Your task to perform on an android device: Open Wikipedia Image 0: 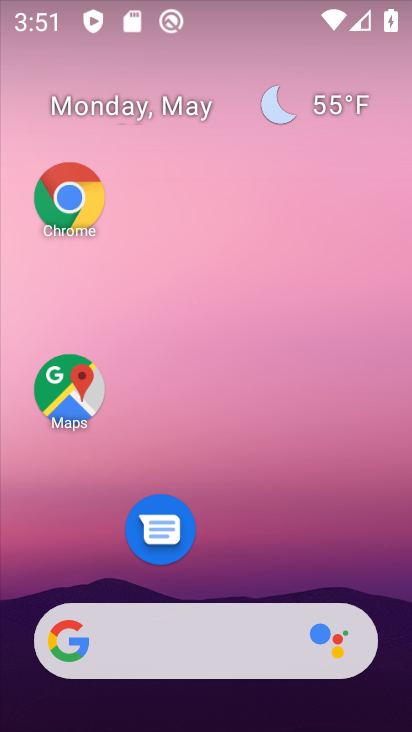
Step 0: drag from (220, 523) to (304, 166)
Your task to perform on an android device: Open Wikipedia Image 1: 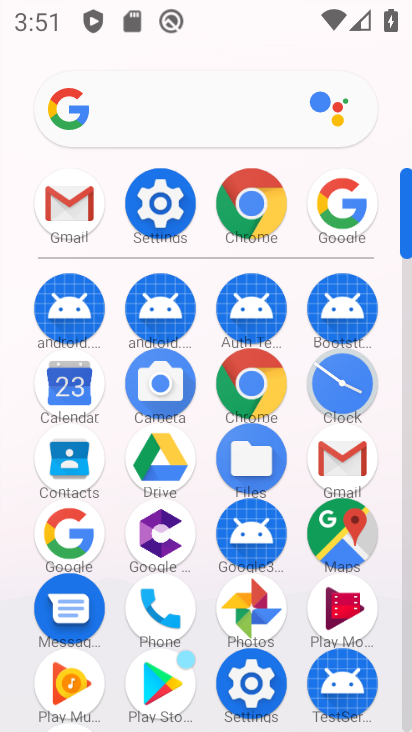
Step 1: click (246, 219)
Your task to perform on an android device: Open Wikipedia Image 2: 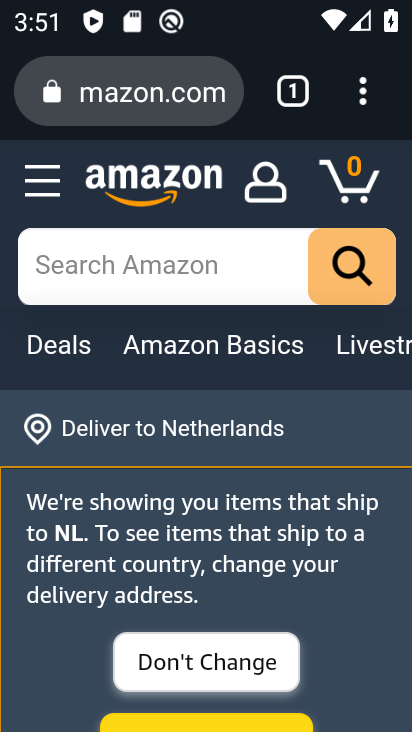
Step 2: click (198, 105)
Your task to perform on an android device: Open Wikipedia Image 3: 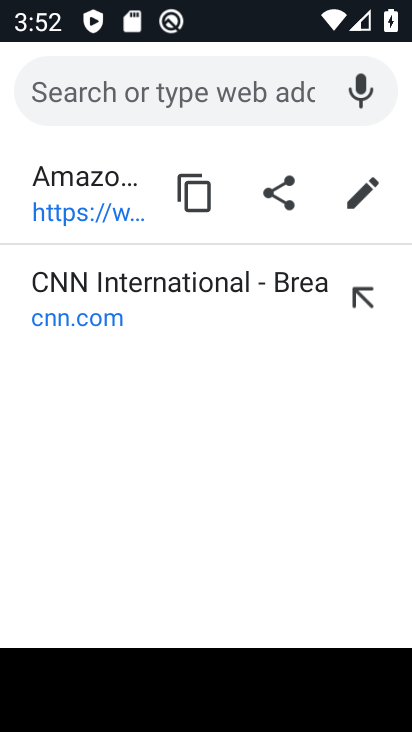
Step 3: type "wikipedia"
Your task to perform on an android device: Open Wikipedia Image 4: 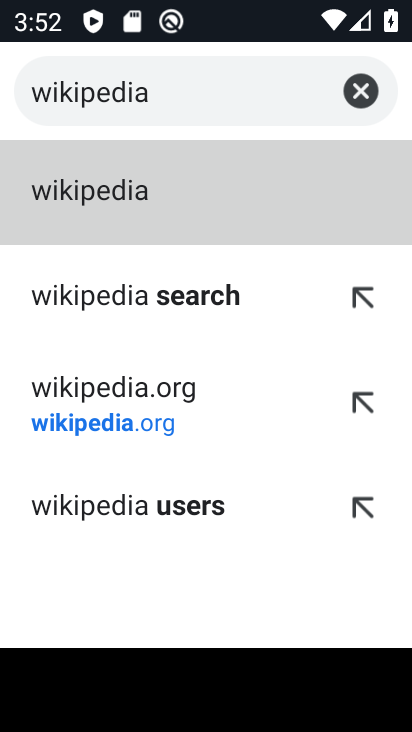
Step 4: click (168, 421)
Your task to perform on an android device: Open Wikipedia Image 5: 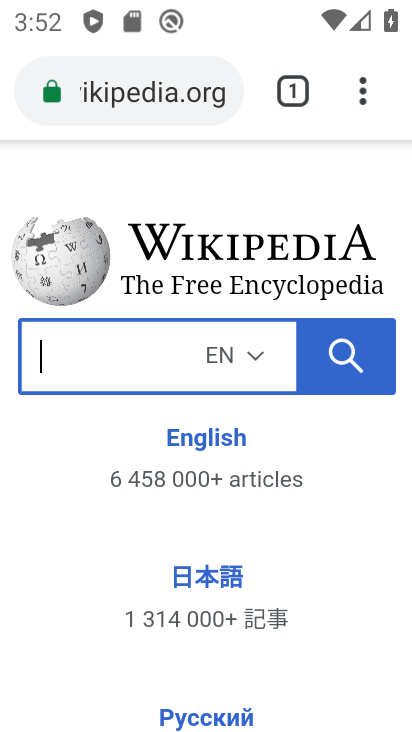
Step 5: task complete